Your task to perform on an android device: turn pop-ups off in chrome Image 0: 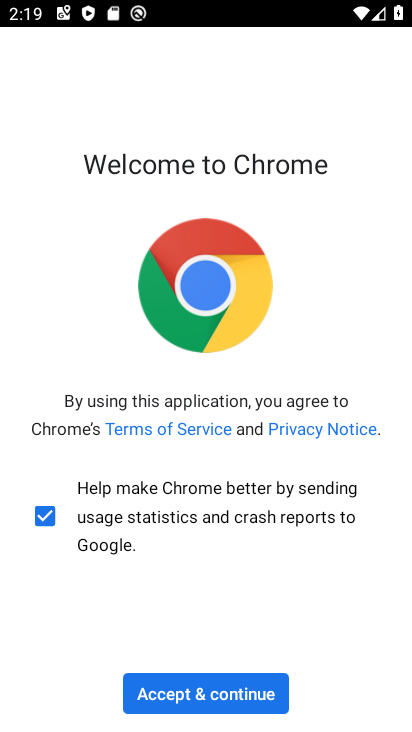
Step 0: click (207, 687)
Your task to perform on an android device: turn pop-ups off in chrome Image 1: 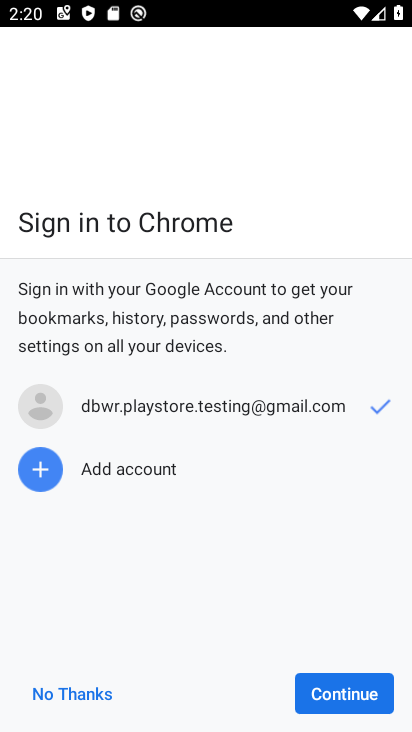
Step 1: click (361, 701)
Your task to perform on an android device: turn pop-ups off in chrome Image 2: 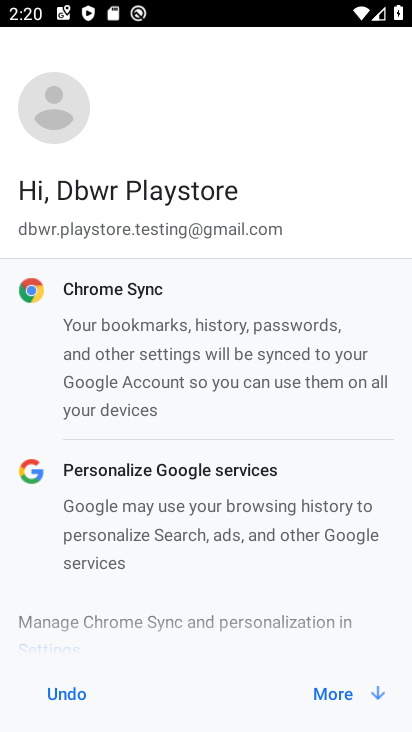
Step 2: press home button
Your task to perform on an android device: turn pop-ups off in chrome Image 3: 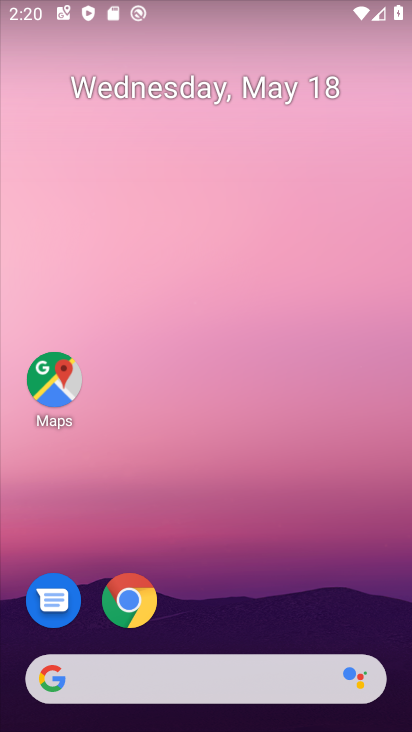
Step 3: click (155, 604)
Your task to perform on an android device: turn pop-ups off in chrome Image 4: 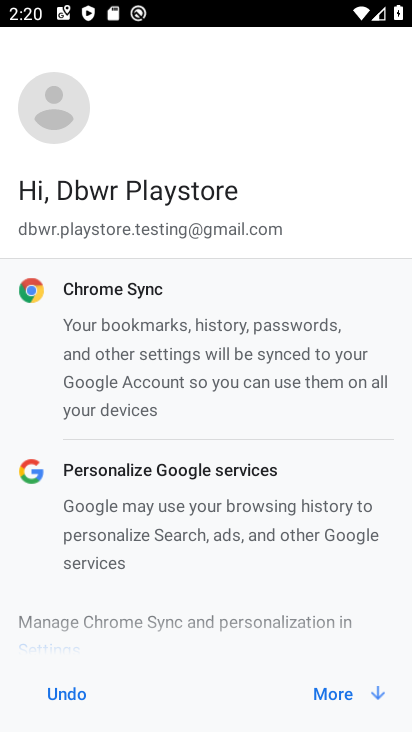
Step 4: click (323, 697)
Your task to perform on an android device: turn pop-ups off in chrome Image 5: 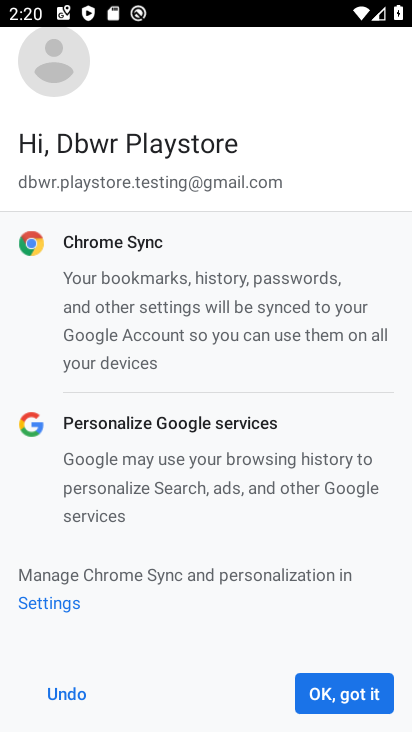
Step 5: click (333, 697)
Your task to perform on an android device: turn pop-ups off in chrome Image 6: 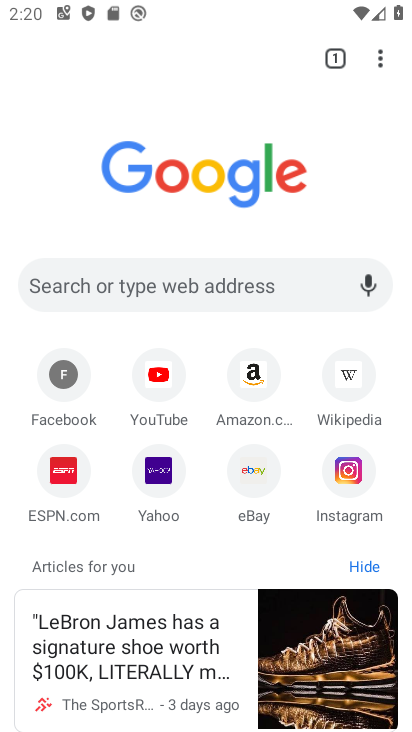
Step 6: click (389, 67)
Your task to perform on an android device: turn pop-ups off in chrome Image 7: 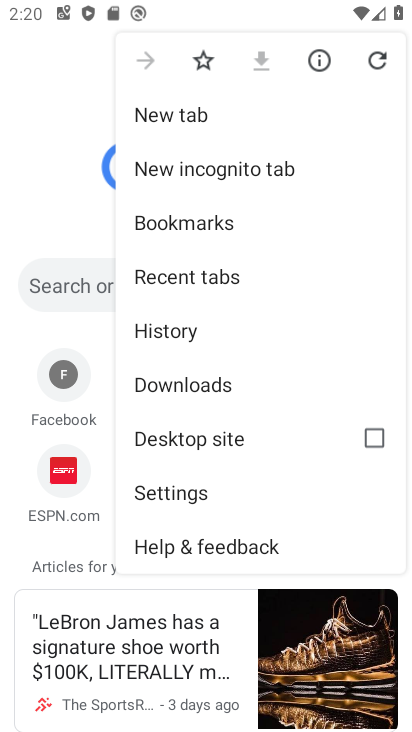
Step 7: click (182, 496)
Your task to perform on an android device: turn pop-ups off in chrome Image 8: 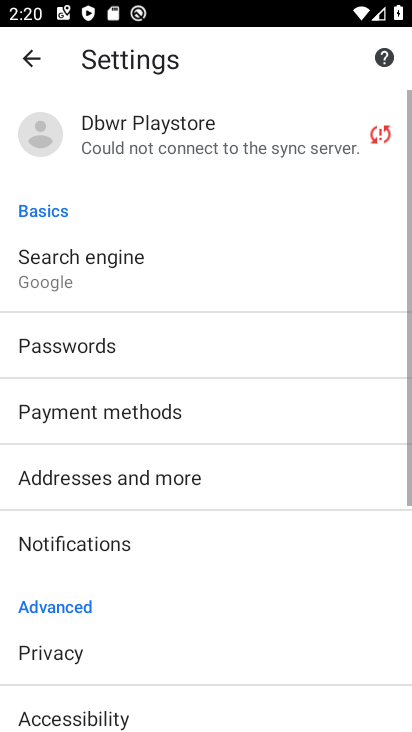
Step 8: drag from (132, 573) to (172, 227)
Your task to perform on an android device: turn pop-ups off in chrome Image 9: 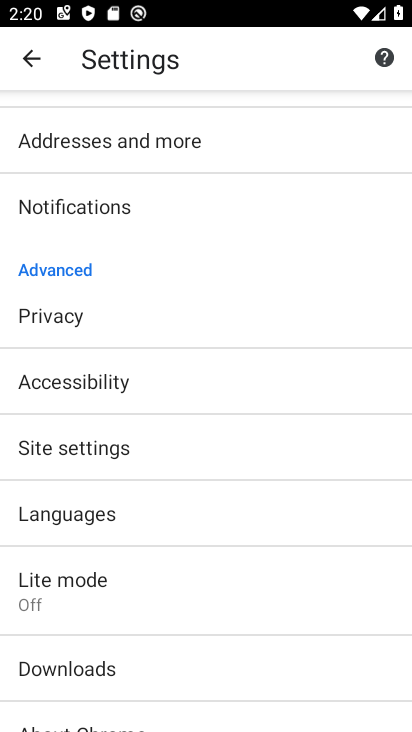
Step 9: click (86, 448)
Your task to perform on an android device: turn pop-ups off in chrome Image 10: 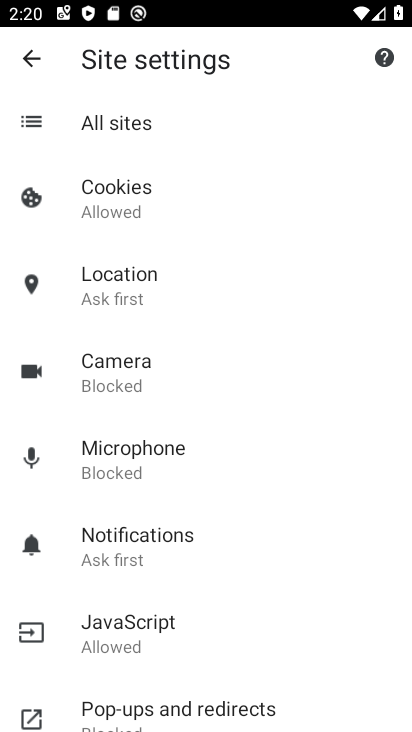
Step 10: drag from (161, 624) to (214, 403)
Your task to perform on an android device: turn pop-ups off in chrome Image 11: 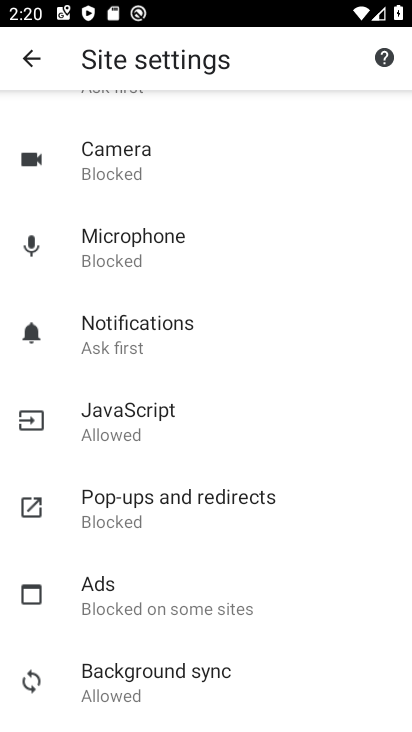
Step 11: click (198, 544)
Your task to perform on an android device: turn pop-ups off in chrome Image 12: 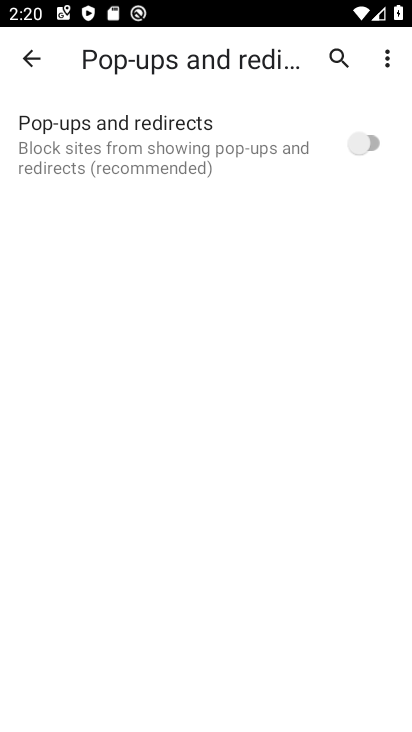
Step 12: task complete